Your task to perform on an android device: open wifi settings Image 0: 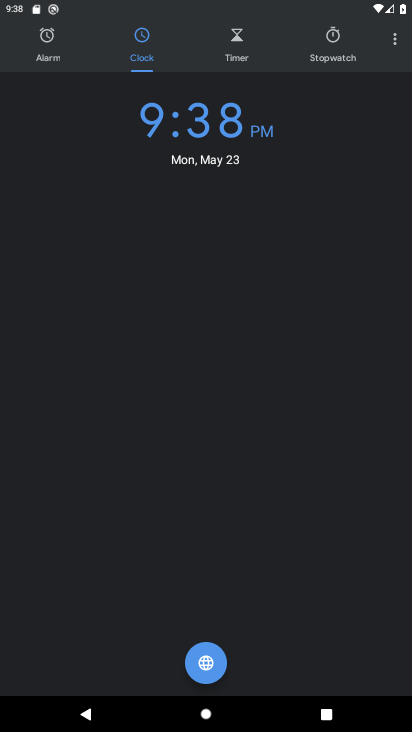
Step 0: press home button
Your task to perform on an android device: open wifi settings Image 1: 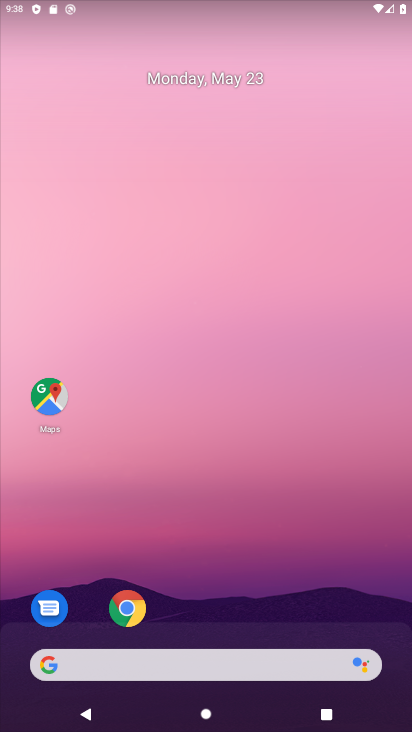
Step 1: drag from (229, 447) to (275, 172)
Your task to perform on an android device: open wifi settings Image 2: 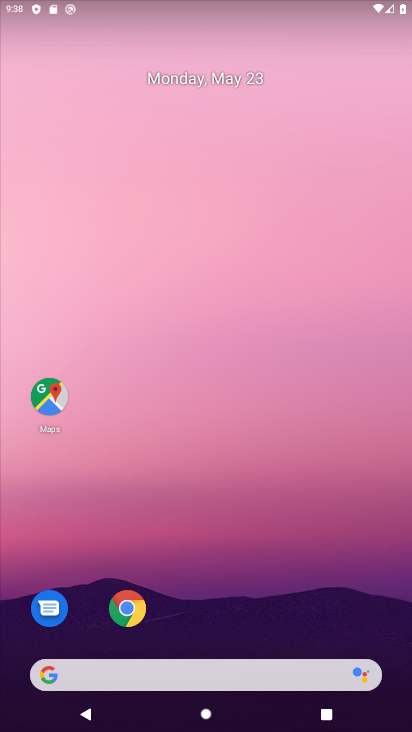
Step 2: drag from (177, 636) to (192, 556)
Your task to perform on an android device: open wifi settings Image 3: 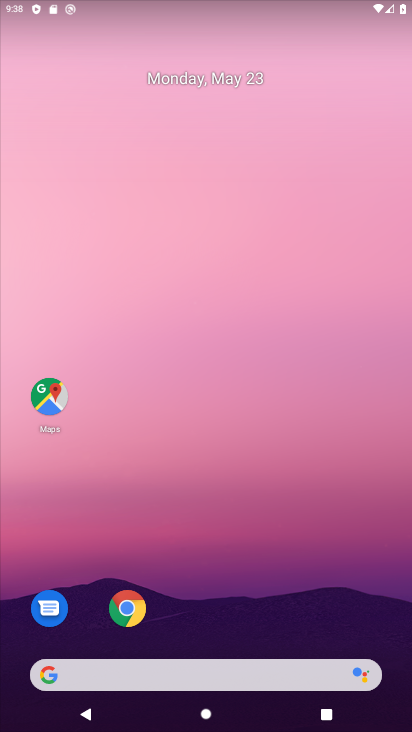
Step 3: drag from (185, 664) to (276, 234)
Your task to perform on an android device: open wifi settings Image 4: 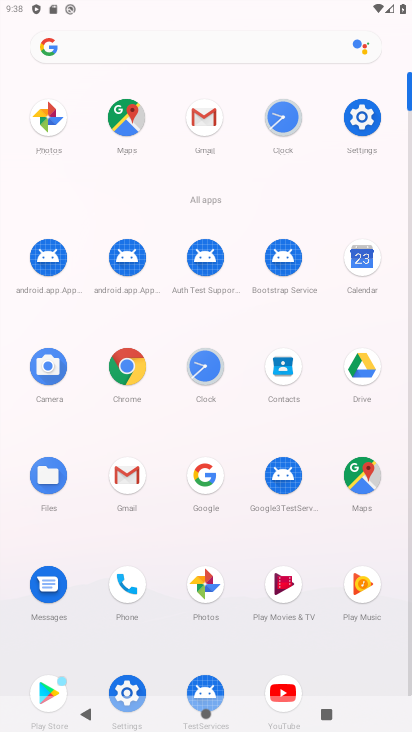
Step 4: drag from (158, 653) to (210, 350)
Your task to perform on an android device: open wifi settings Image 5: 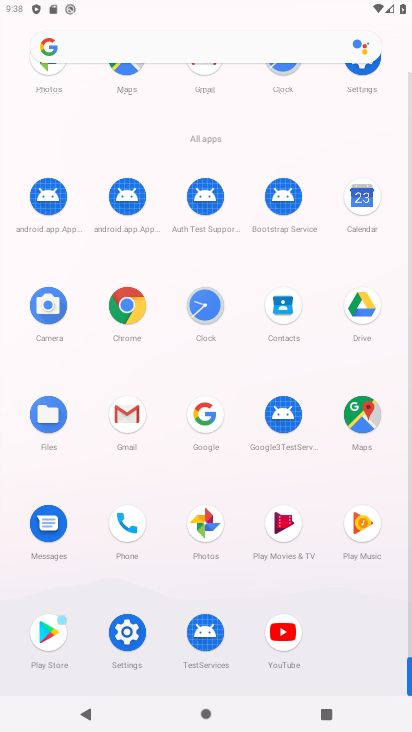
Step 5: click (123, 608)
Your task to perform on an android device: open wifi settings Image 6: 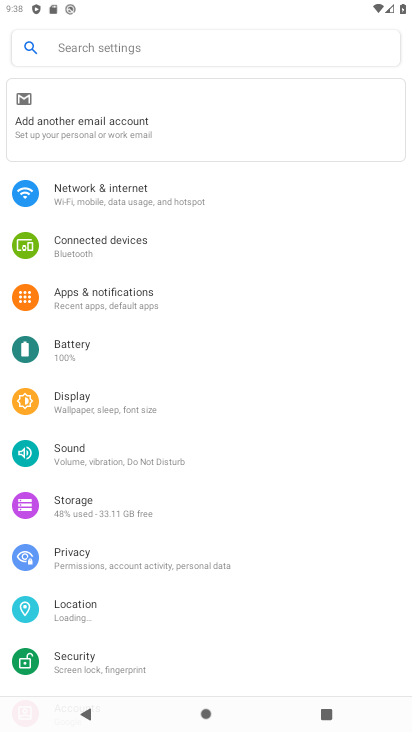
Step 6: click (155, 201)
Your task to perform on an android device: open wifi settings Image 7: 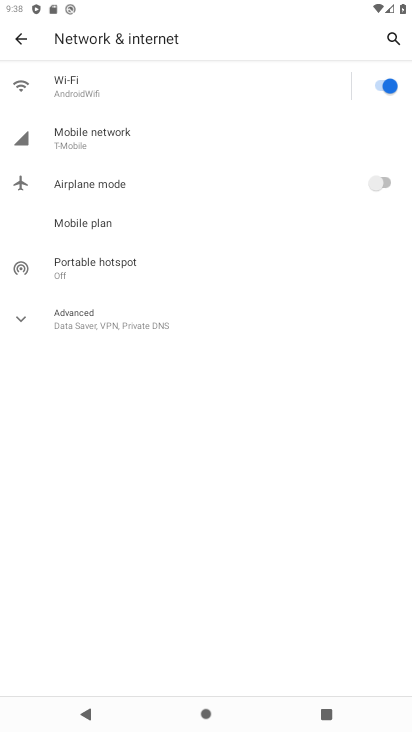
Step 7: click (166, 88)
Your task to perform on an android device: open wifi settings Image 8: 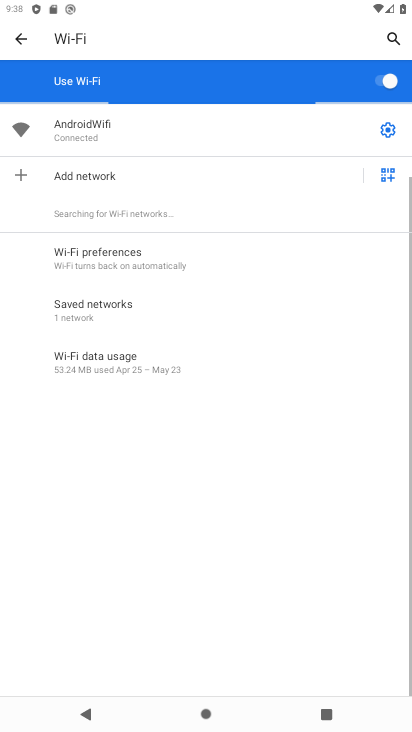
Step 8: task complete